Your task to perform on an android device: Open the calendar app, open the side menu, and click the "Day" option Image 0: 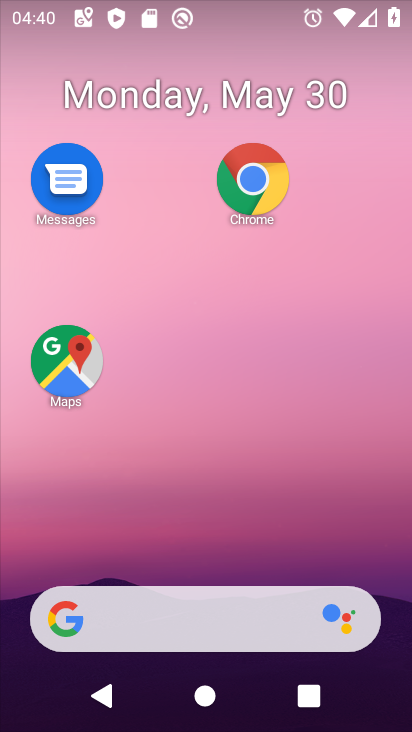
Step 0: drag from (232, 544) to (172, 68)
Your task to perform on an android device: Open the calendar app, open the side menu, and click the "Day" option Image 1: 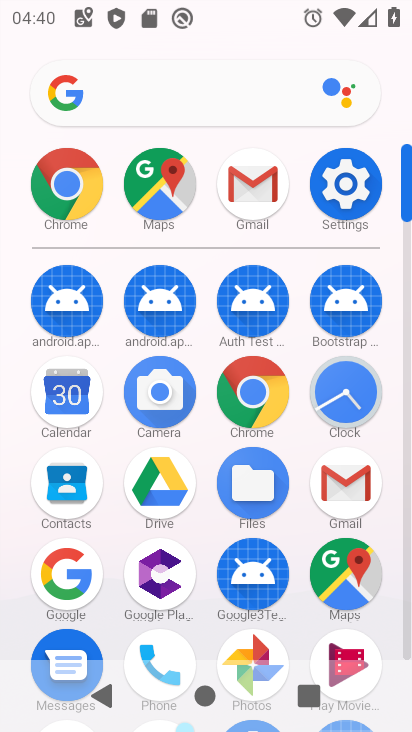
Step 1: click (70, 403)
Your task to perform on an android device: Open the calendar app, open the side menu, and click the "Day" option Image 2: 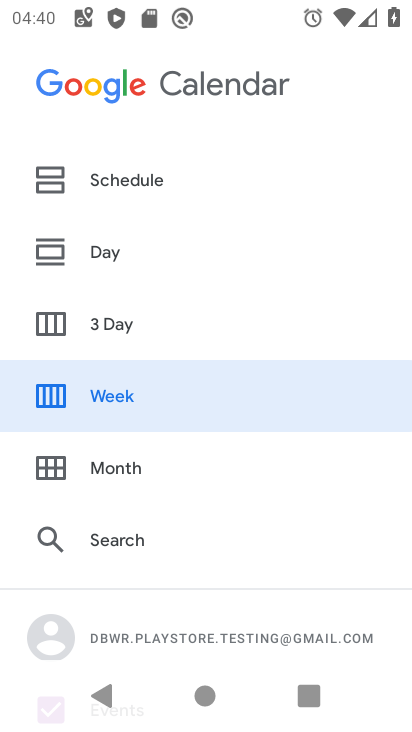
Step 2: click (95, 258)
Your task to perform on an android device: Open the calendar app, open the side menu, and click the "Day" option Image 3: 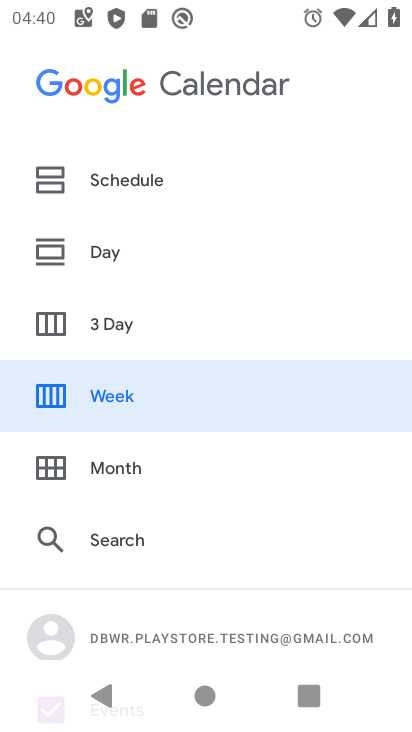
Step 3: click (95, 250)
Your task to perform on an android device: Open the calendar app, open the side menu, and click the "Day" option Image 4: 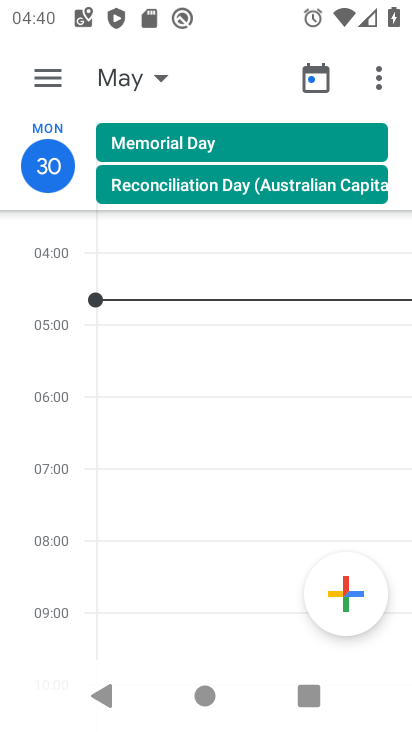
Step 4: task complete